Your task to perform on an android device: delete browsing data in the chrome app Image 0: 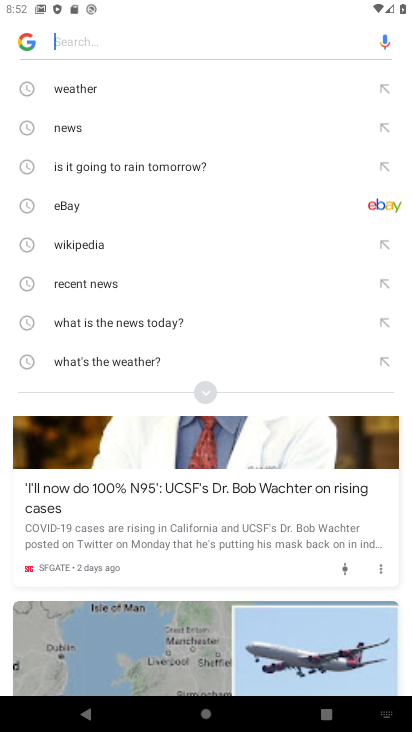
Step 0: press back button
Your task to perform on an android device: delete browsing data in the chrome app Image 1: 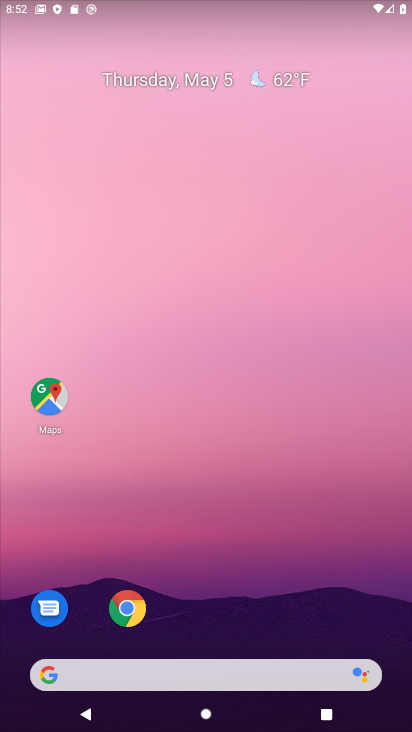
Step 1: drag from (285, 542) to (204, 19)
Your task to perform on an android device: delete browsing data in the chrome app Image 2: 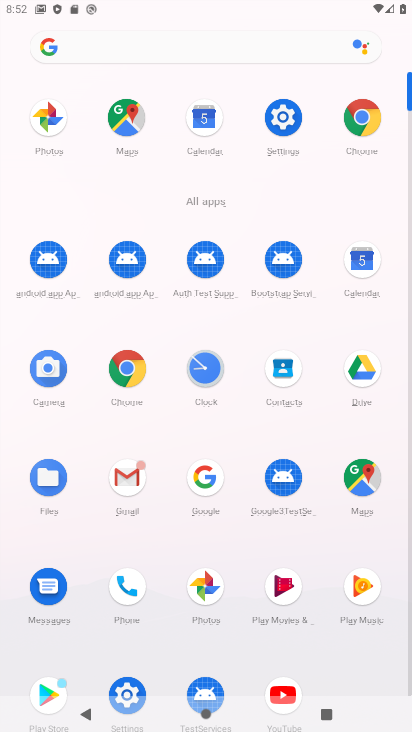
Step 2: drag from (4, 587) to (5, 300)
Your task to perform on an android device: delete browsing data in the chrome app Image 3: 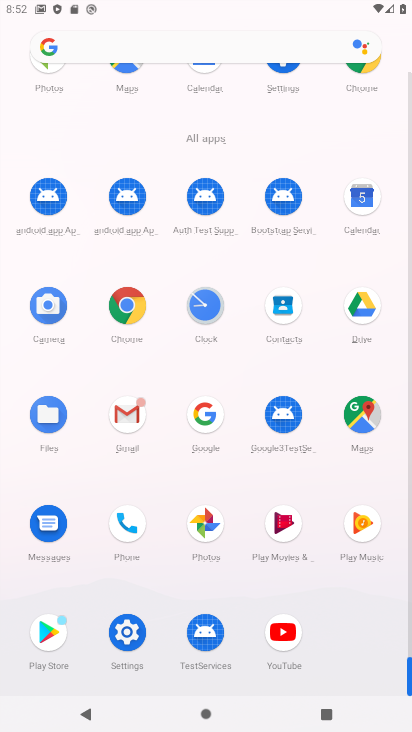
Step 3: click (123, 298)
Your task to perform on an android device: delete browsing data in the chrome app Image 4: 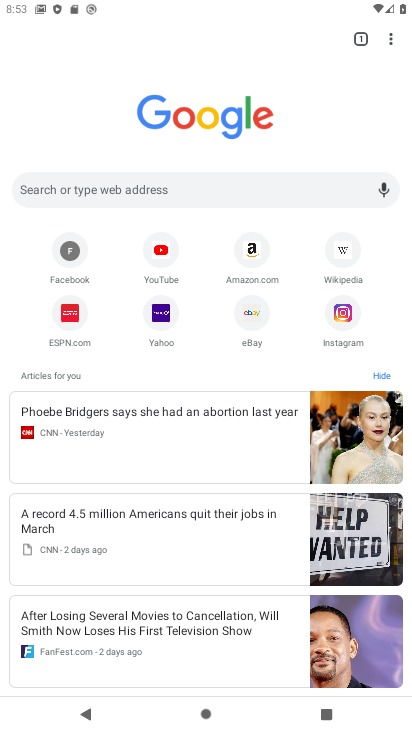
Step 4: drag from (393, 33) to (275, 216)
Your task to perform on an android device: delete browsing data in the chrome app Image 5: 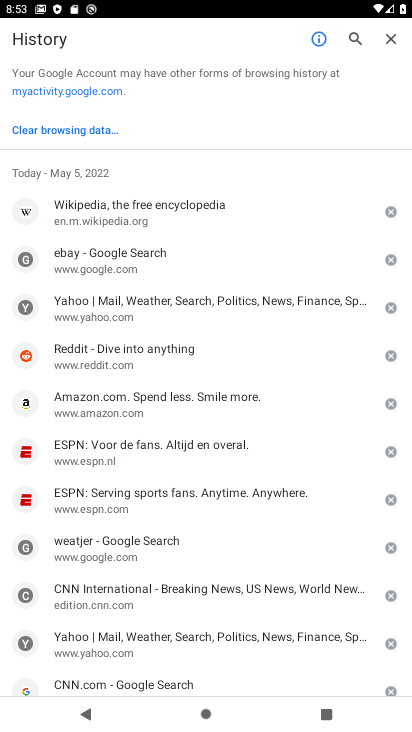
Step 5: click (75, 129)
Your task to perform on an android device: delete browsing data in the chrome app Image 6: 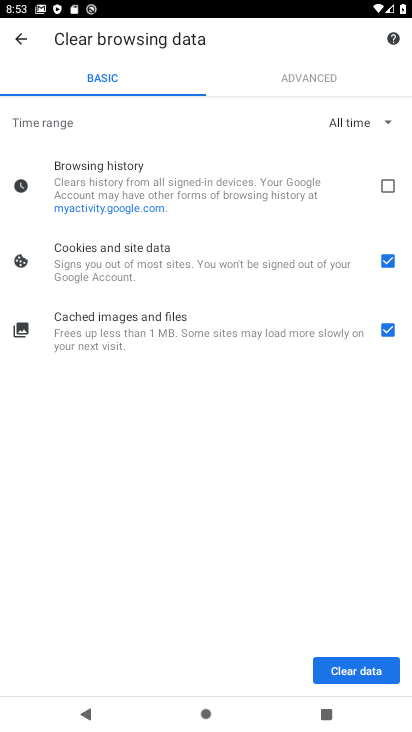
Step 6: click (358, 675)
Your task to perform on an android device: delete browsing data in the chrome app Image 7: 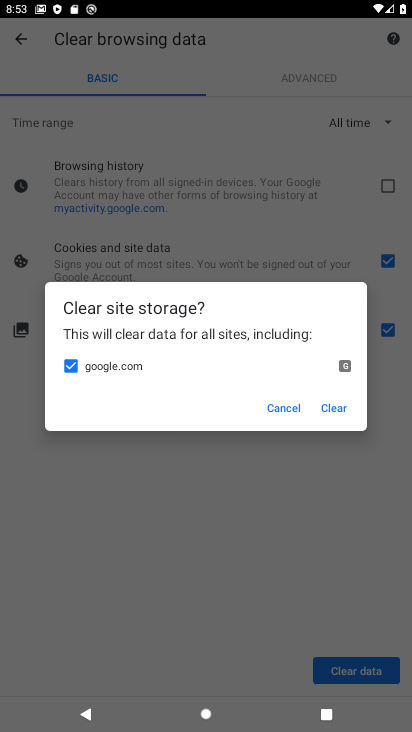
Step 7: click (331, 401)
Your task to perform on an android device: delete browsing data in the chrome app Image 8: 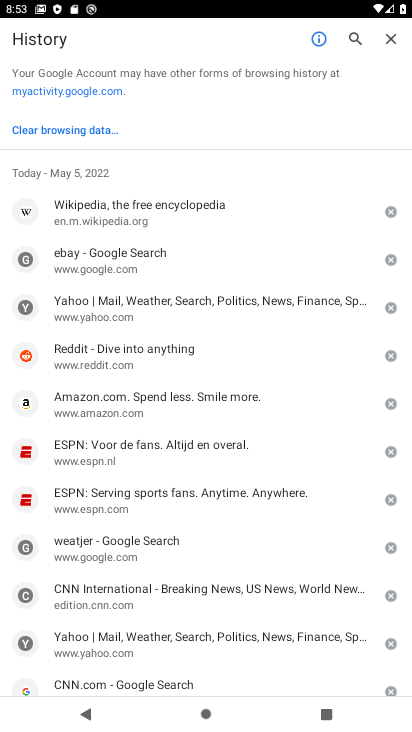
Step 8: task complete